Your task to perform on an android device: Open privacy settings Image 0: 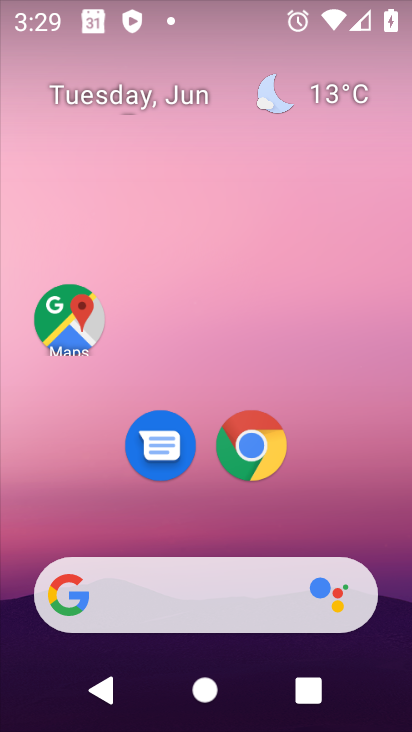
Step 0: drag from (393, 606) to (352, 32)
Your task to perform on an android device: Open privacy settings Image 1: 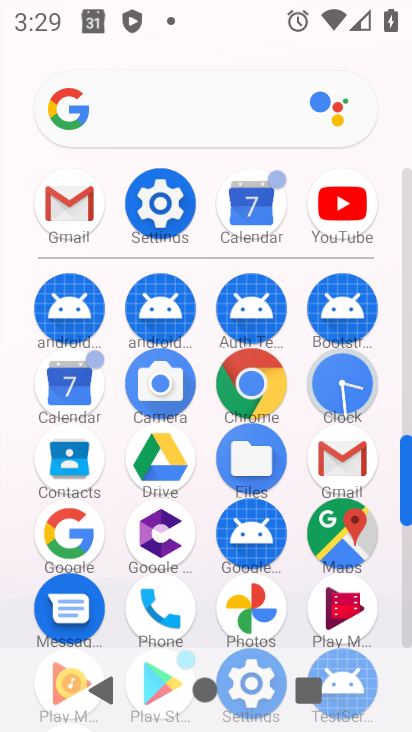
Step 1: click (409, 629)
Your task to perform on an android device: Open privacy settings Image 2: 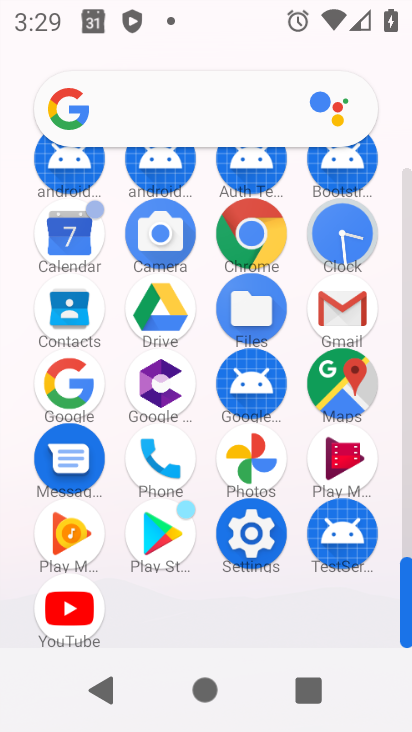
Step 2: click (251, 533)
Your task to perform on an android device: Open privacy settings Image 3: 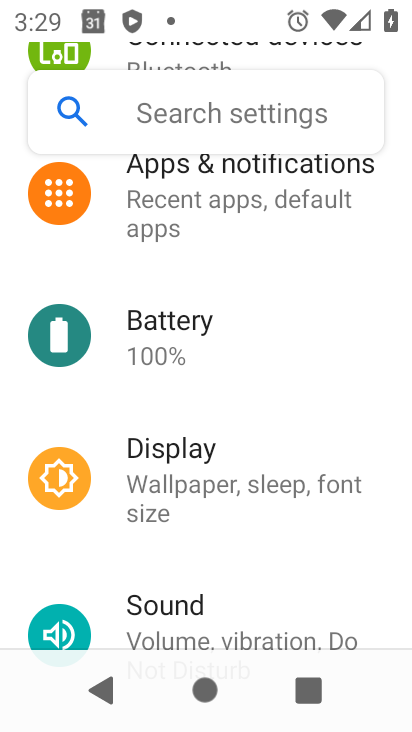
Step 3: drag from (362, 552) to (312, 164)
Your task to perform on an android device: Open privacy settings Image 4: 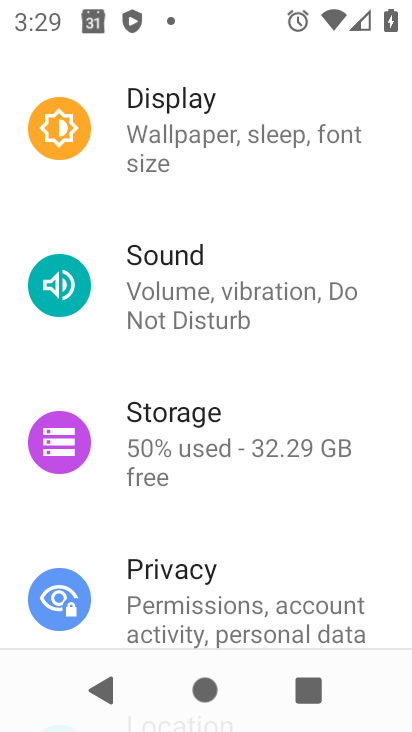
Step 4: drag from (334, 549) to (360, 198)
Your task to perform on an android device: Open privacy settings Image 5: 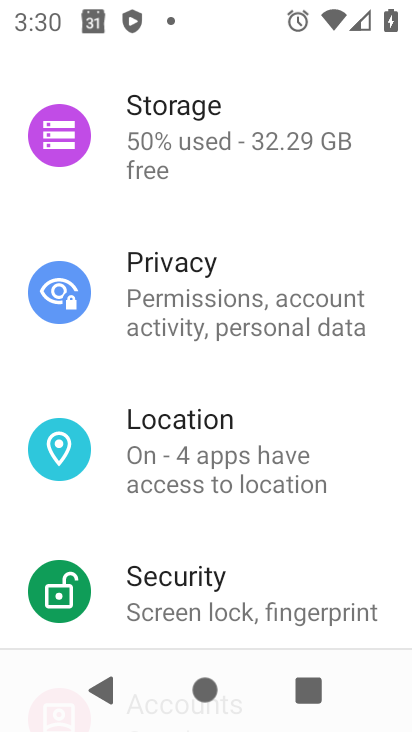
Step 5: click (193, 296)
Your task to perform on an android device: Open privacy settings Image 6: 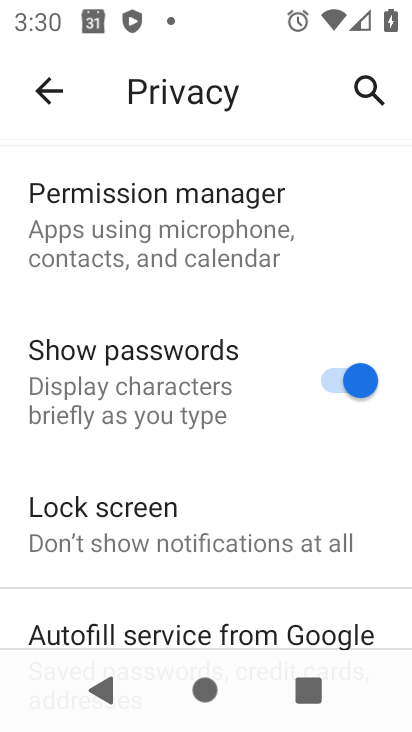
Step 6: drag from (340, 602) to (302, 233)
Your task to perform on an android device: Open privacy settings Image 7: 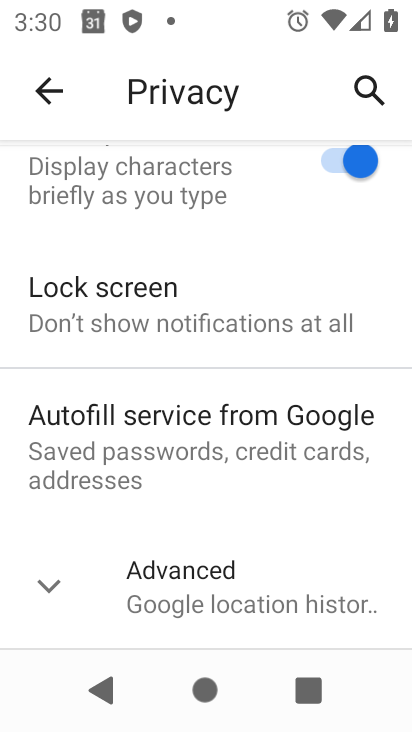
Step 7: click (55, 587)
Your task to perform on an android device: Open privacy settings Image 8: 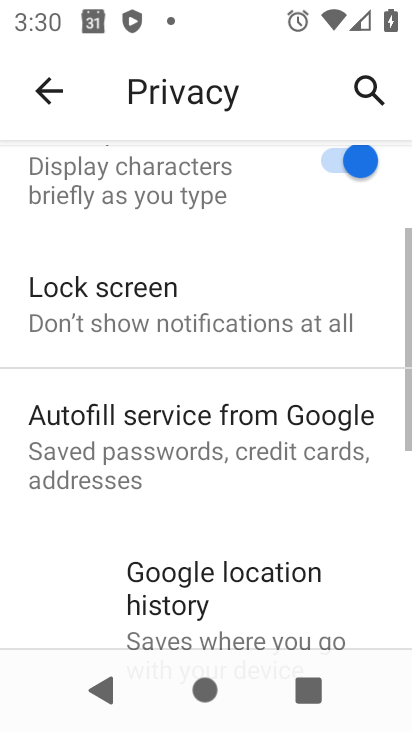
Step 8: task complete